Your task to perform on an android device: change notification settings in the gmail app Image 0: 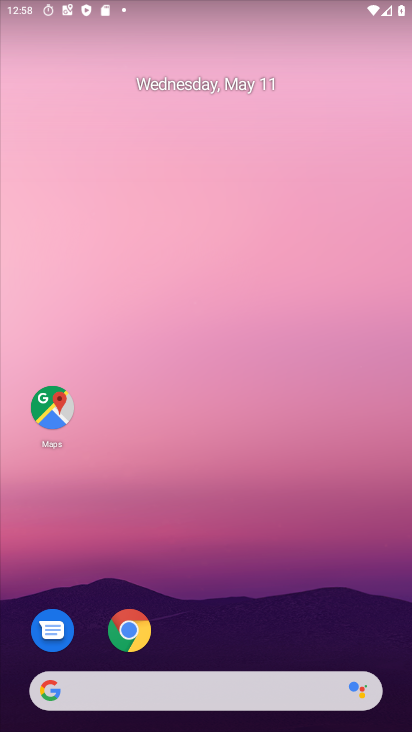
Step 0: drag from (324, 584) to (178, 69)
Your task to perform on an android device: change notification settings in the gmail app Image 1: 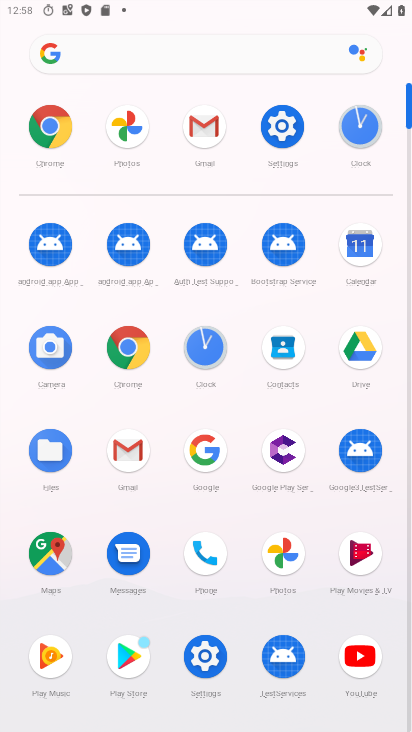
Step 1: click (208, 117)
Your task to perform on an android device: change notification settings in the gmail app Image 2: 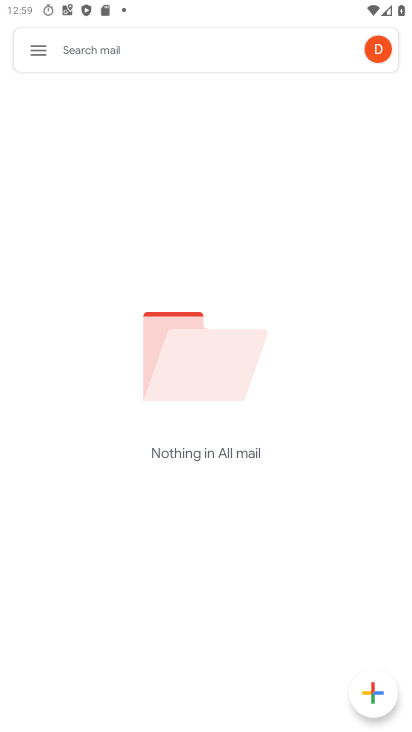
Step 2: click (40, 46)
Your task to perform on an android device: change notification settings in the gmail app Image 3: 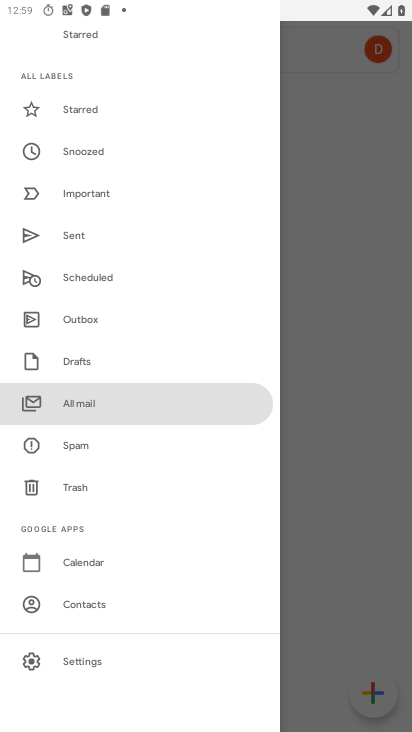
Step 3: click (107, 664)
Your task to perform on an android device: change notification settings in the gmail app Image 4: 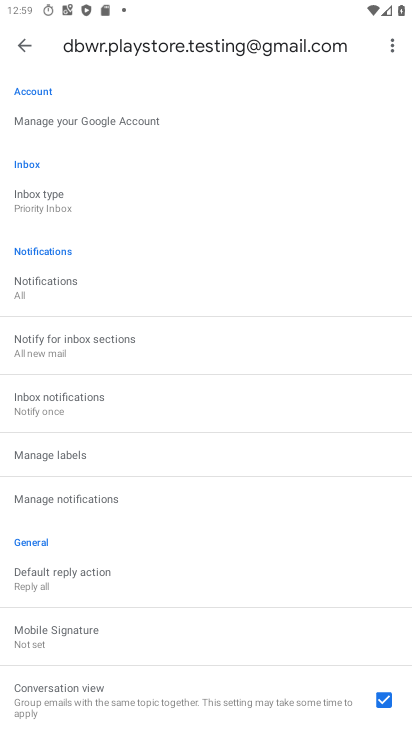
Step 4: click (77, 501)
Your task to perform on an android device: change notification settings in the gmail app Image 5: 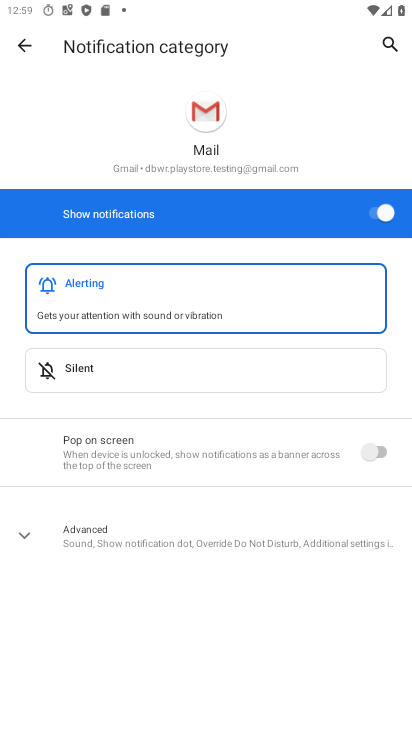
Step 5: click (370, 204)
Your task to perform on an android device: change notification settings in the gmail app Image 6: 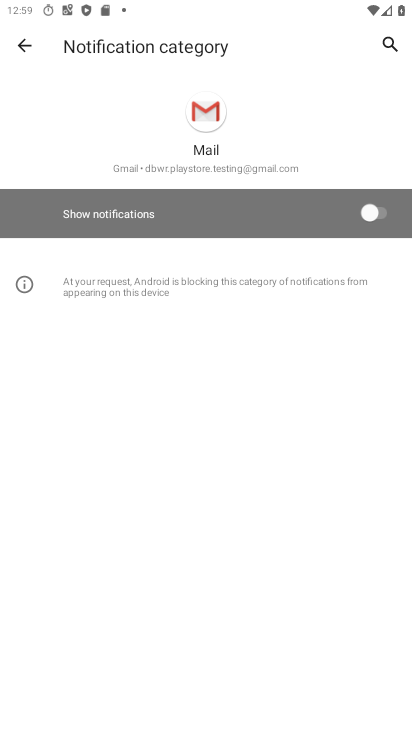
Step 6: task complete